Your task to perform on an android device: turn on wifi Image 0: 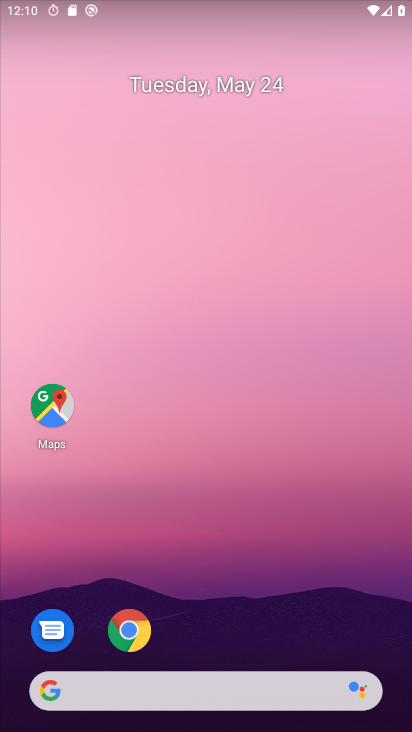
Step 0: drag from (243, 650) to (332, 47)
Your task to perform on an android device: turn on wifi Image 1: 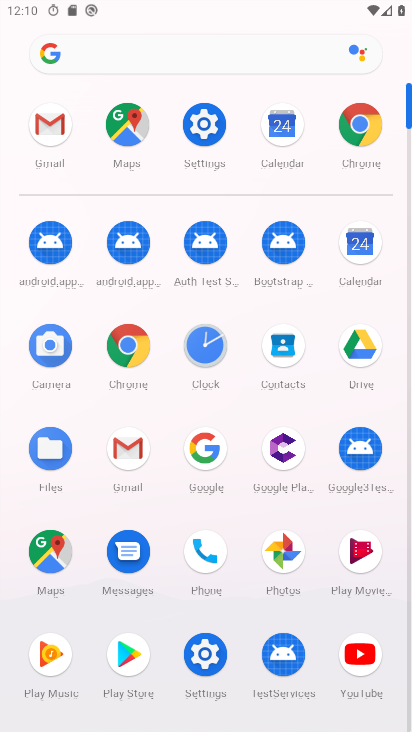
Step 1: click (200, 137)
Your task to perform on an android device: turn on wifi Image 2: 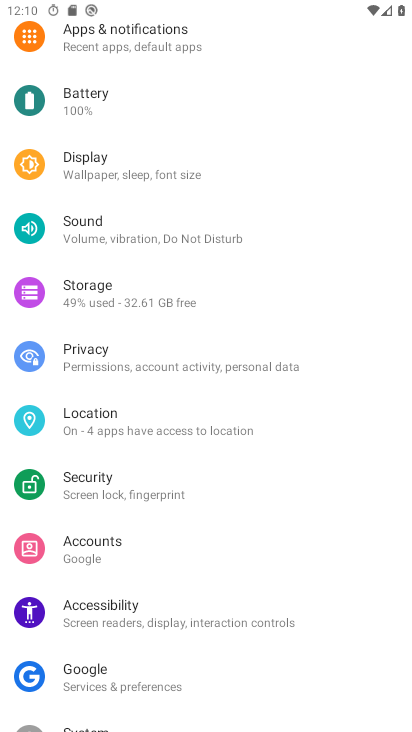
Step 2: drag from (155, 162) to (149, 528)
Your task to perform on an android device: turn on wifi Image 3: 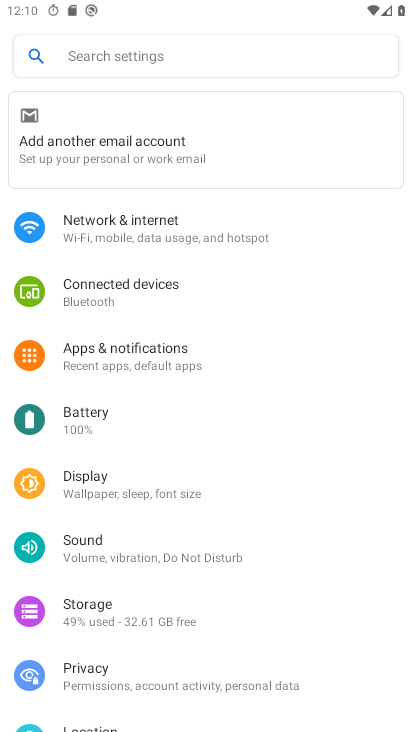
Step 3: click (157, 237)
Your task to perform on an android device: turn on wifi Image 4: 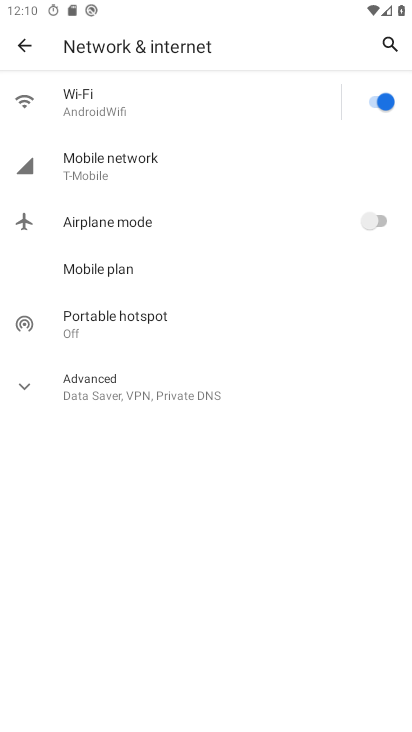
Step 4: task complete